Your task to perform on an android device: show emergency info Image 0: 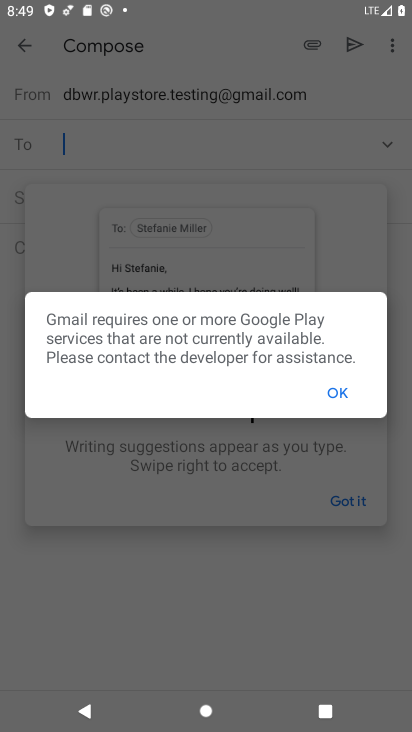
Step 0: press home button
Your task to perform on an android device: show emergency info Image 1: 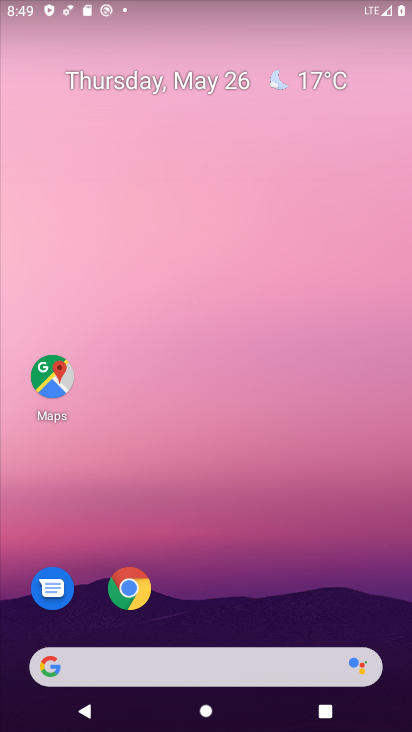
Step 1: drag from (377, 617) to (343, 114)
Your task to perform on an android device: show emergency info Image 2: 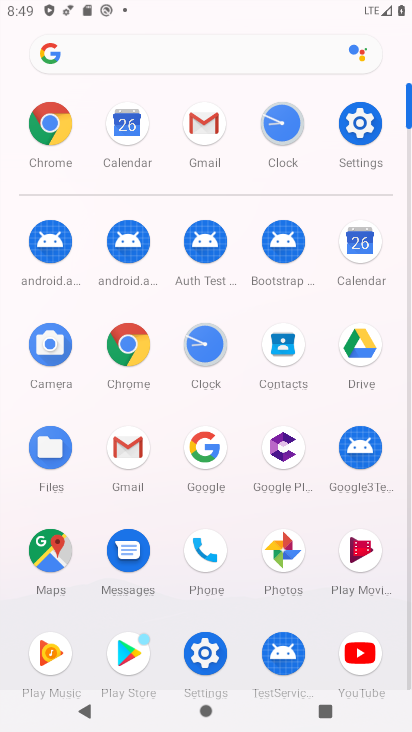
Step 2: click (210, 654)
Your task to perform on an android device: show emergency info Image 3: 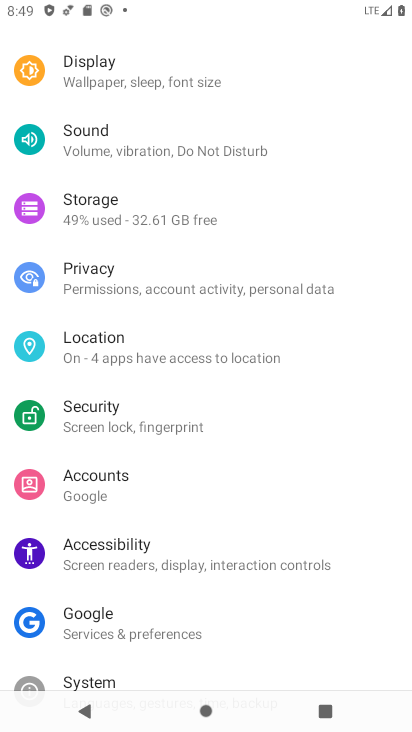
Step 3: drag from (210, 654) to (199, 290)
Your task to perform on an android device: show emergency info Image 4: 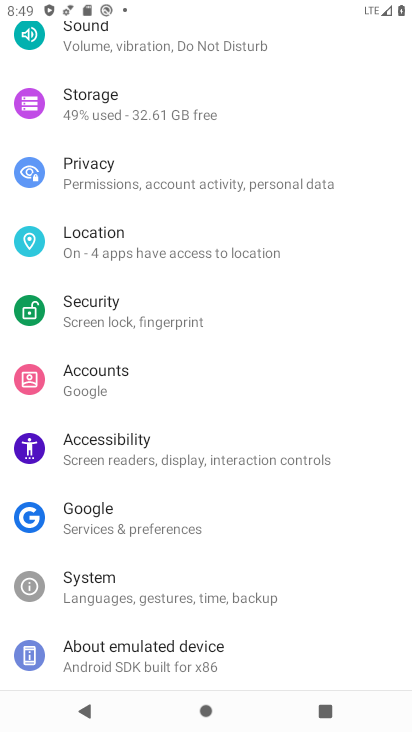
Step 4: click (140, 659)
Your task to perform on an android device: show emergency info Image 5: 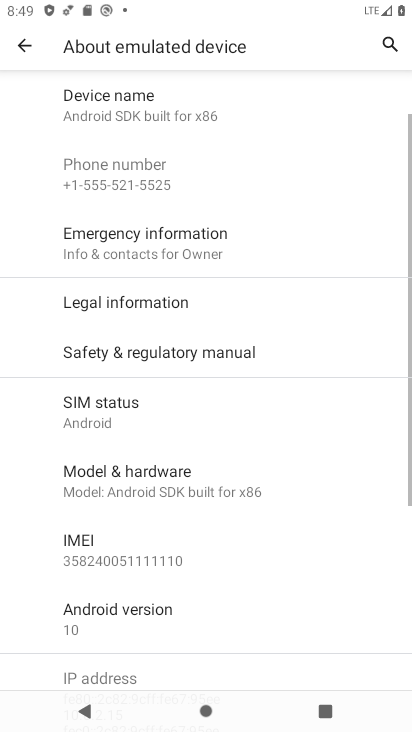
Step 5: click (145, 252)
Your task to perform on an android device: show emergency info Image 6: 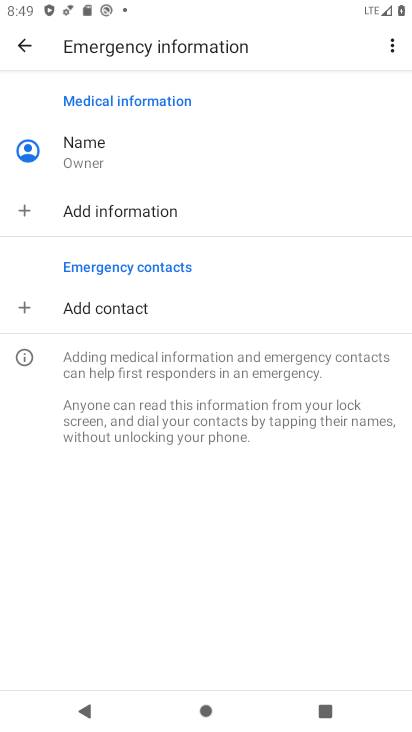
Step 6: task complete